Your task to perform on an android device: Open Google Image 0: 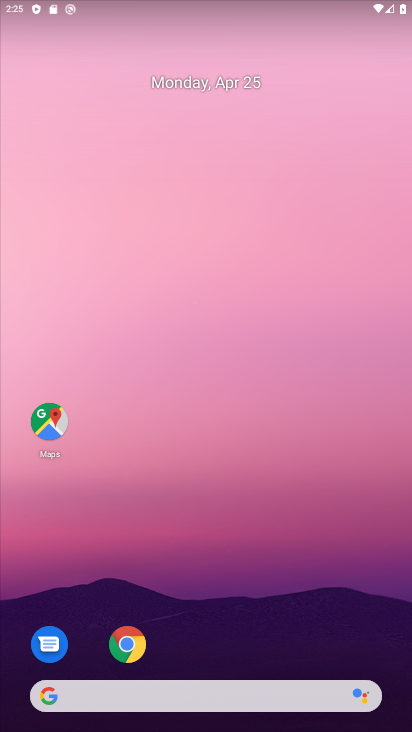
Step 0: drag from (234, 508) to (262, 50)
Your task to perform on an android device: Open Google Image 1: 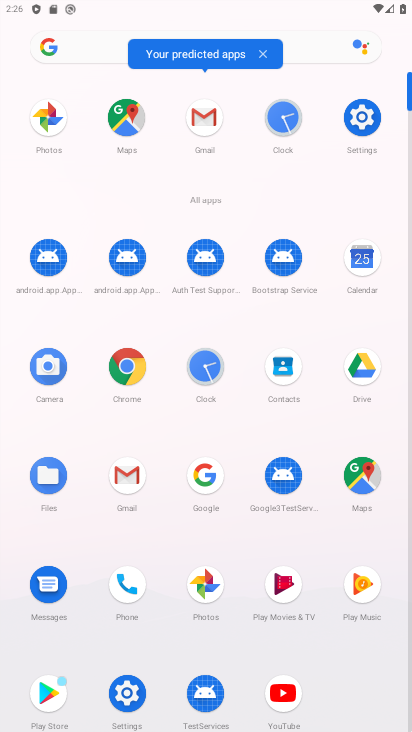
Step 1: click (208, 476)
Your task to perform on an android device: Open Google Image 2: 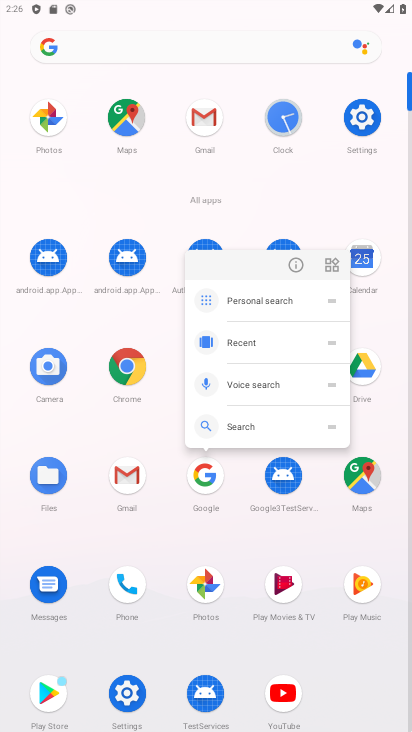
Step 2: click (296, 266)
Your task to perform on an android device: Open Google Image 3: 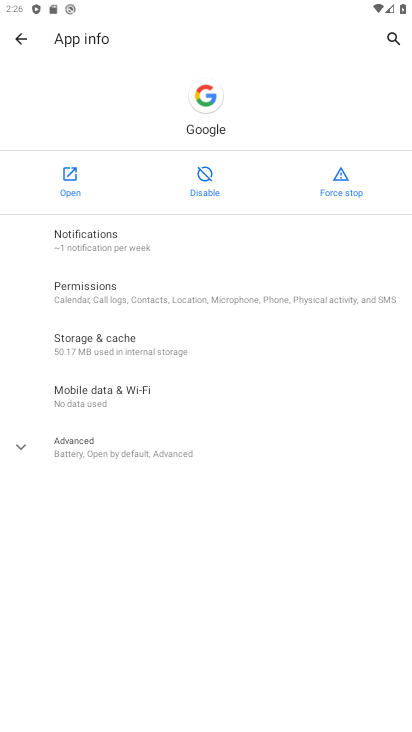
Step 3: click (56, 185)
Your task to perform on an android device: Open Google Image 4: 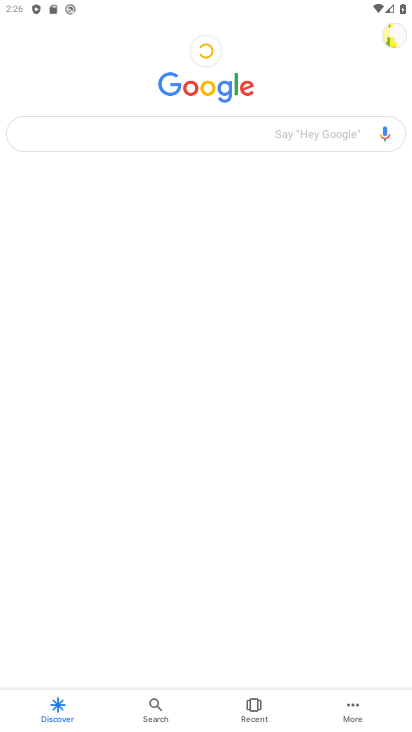
Step 4: task complete